Your task to perform on an android device: open the mobile data screen to see how much data has been used Image 0: 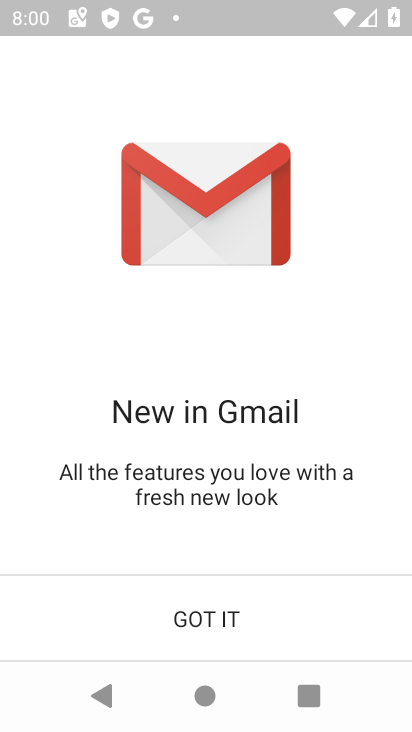
Step 0: drag from (206, 727) to (405, 593)
Your task to perform on an android device: open the mobile data screen to see how much data has been used Image 1: 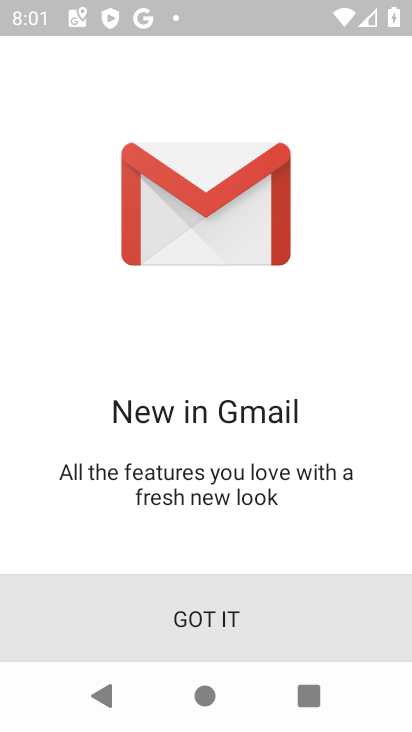
Step 1: press back button
Your task to perform on an android device: open the mobile data screen to see how much data has been used Image 2: 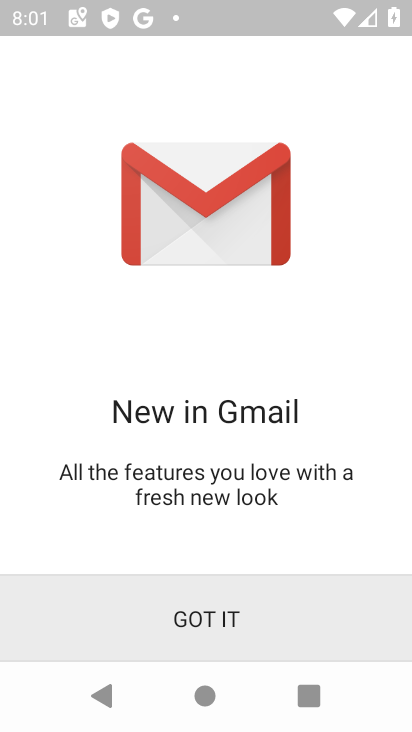
Step 2: drag from (405, 593) to (410, 636)
Your task to perform on an android device: open the mobile data screen to see how much data has been used Image 3: 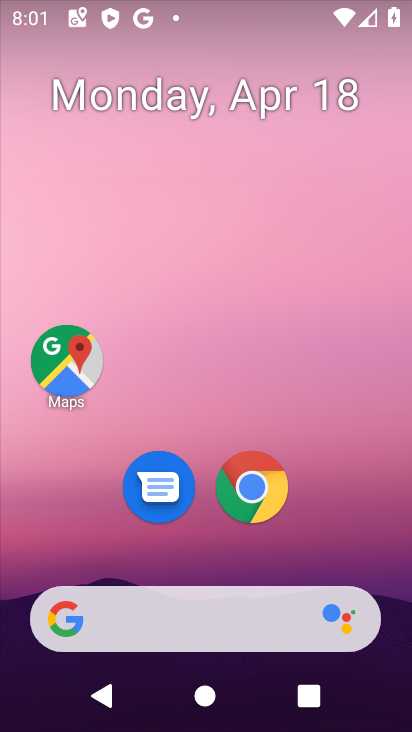
Step 3: drag from (205, 728) to (233, 35)
Your task to perform on an android device: open the mobile data screen to see how much data has been used Image 4: 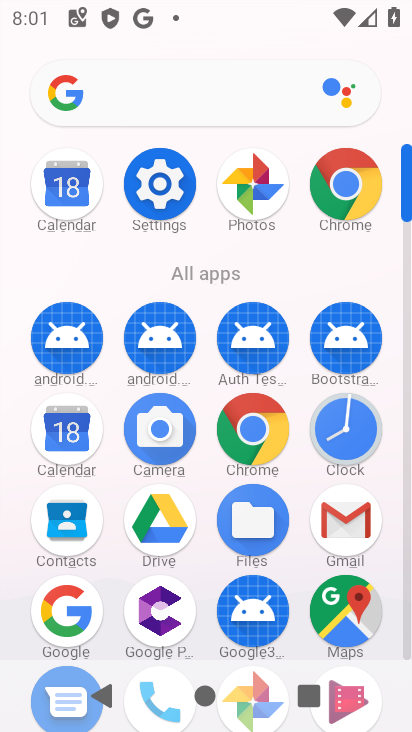
Step 4: click (165, 186)
Your task to perform on an android device: open the mobile data screen to see how much data has been used Image 5: 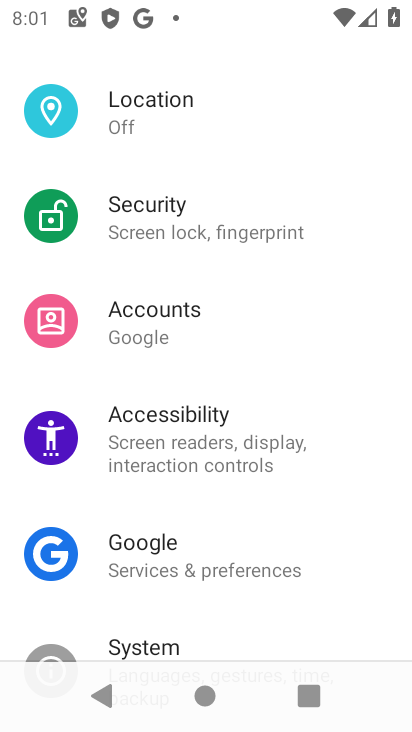
Step 5: drag from (214, 155) to (226, 602)
Your task to perform on an android device: open the mobile data screen to see how much data has been used Image 6: 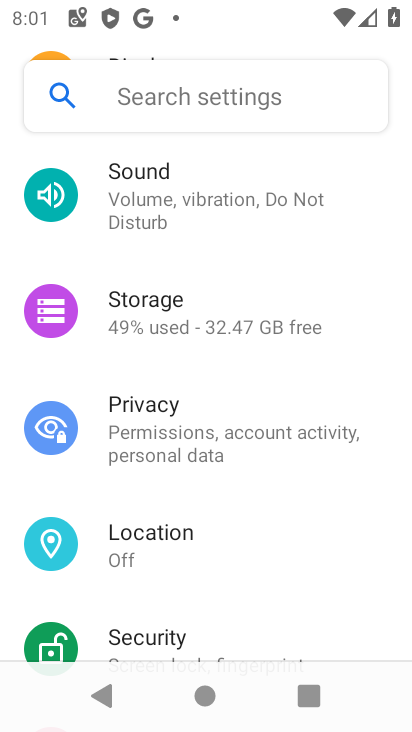
Step 6: drag from (238, 173) to (238, 583)
Your task to perform on an android device: open the mobile data screen to see how much data has been used Image 7: 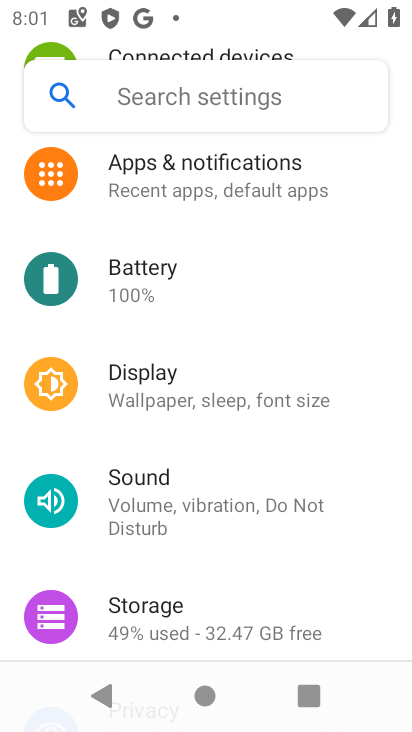
Step 7: drag from (191, 238) to (199, 575)
Your task to perform on an android device: open the mobile data screen to see how much data has been used Image 8: 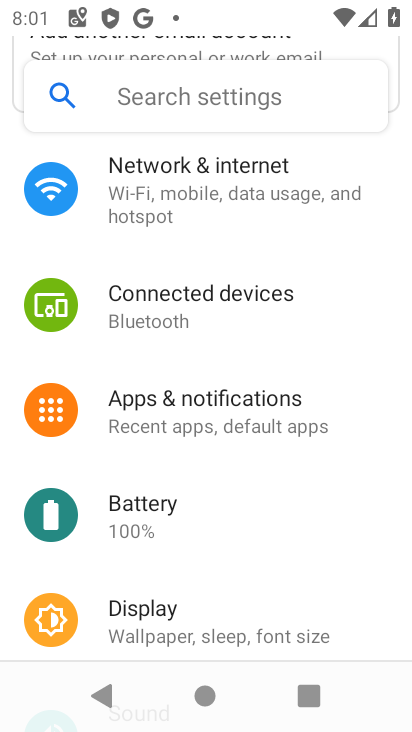
Step 8: click (165, 186)
Your task to perform on an android device: open the mobile data screen to see how much data has been used Image 9: 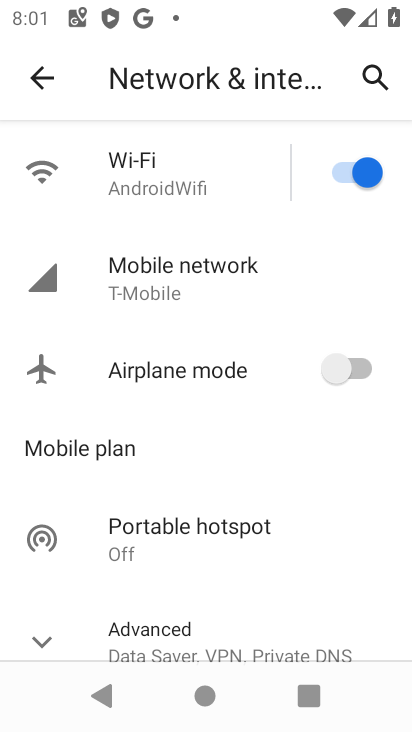
Step 9: click (167, 276)
Your task to perform on an android device: open the mobile data screen to see how much data has been used Image 10: 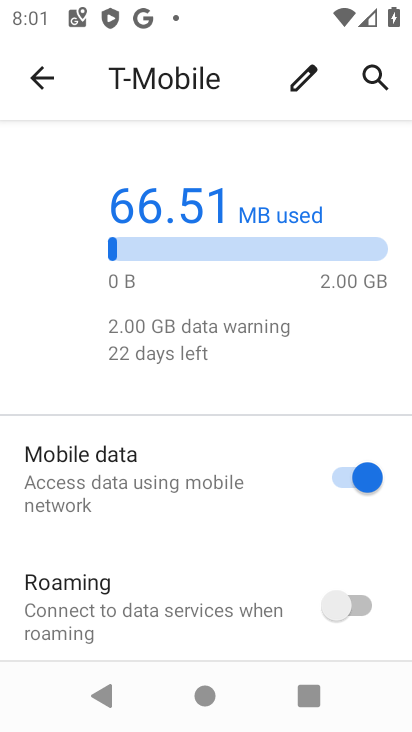
Step 10: drag from (159, 556) to (194, 163)
Your task to perform on an android device: open the mobile data screen to see how much data has been used Image 11: 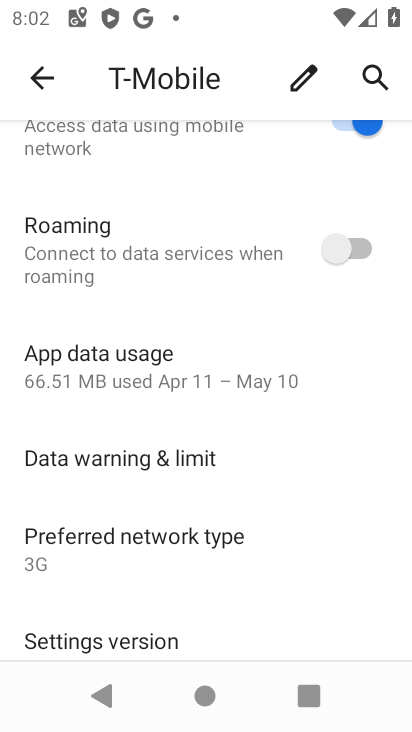
Step 11: click (109, 361)
Your task to perform on an android device: open the mobile data screen to see how much data has been used Image 12: 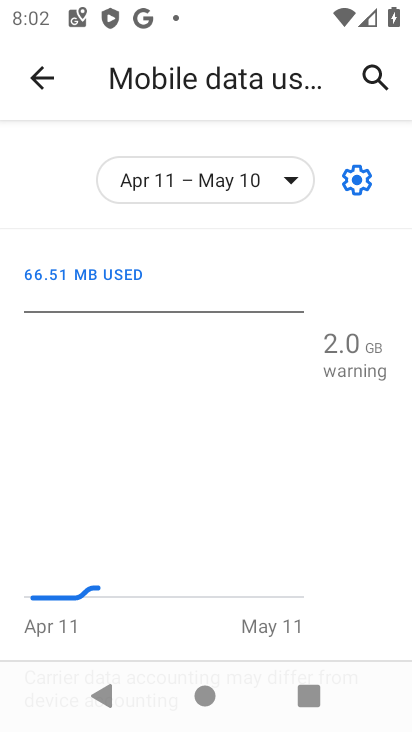
Step 12: task complete